Your task to perform on an android device: What's the price of the 2x4x8 boards at Home Depot? Image 0: 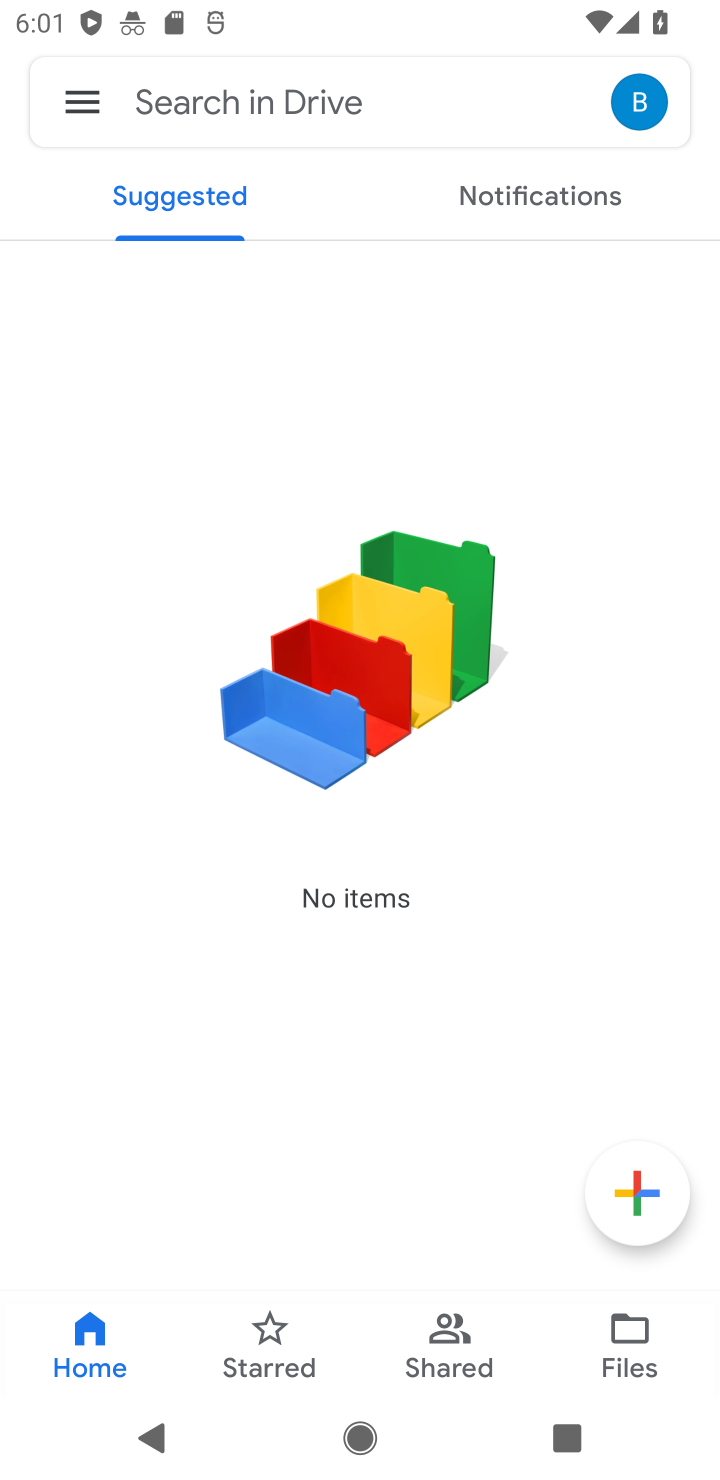
Step 0: press home button
Your task to perform on an android device: What's the price of the 2x4x8 boards at Home Depot? Image 1: 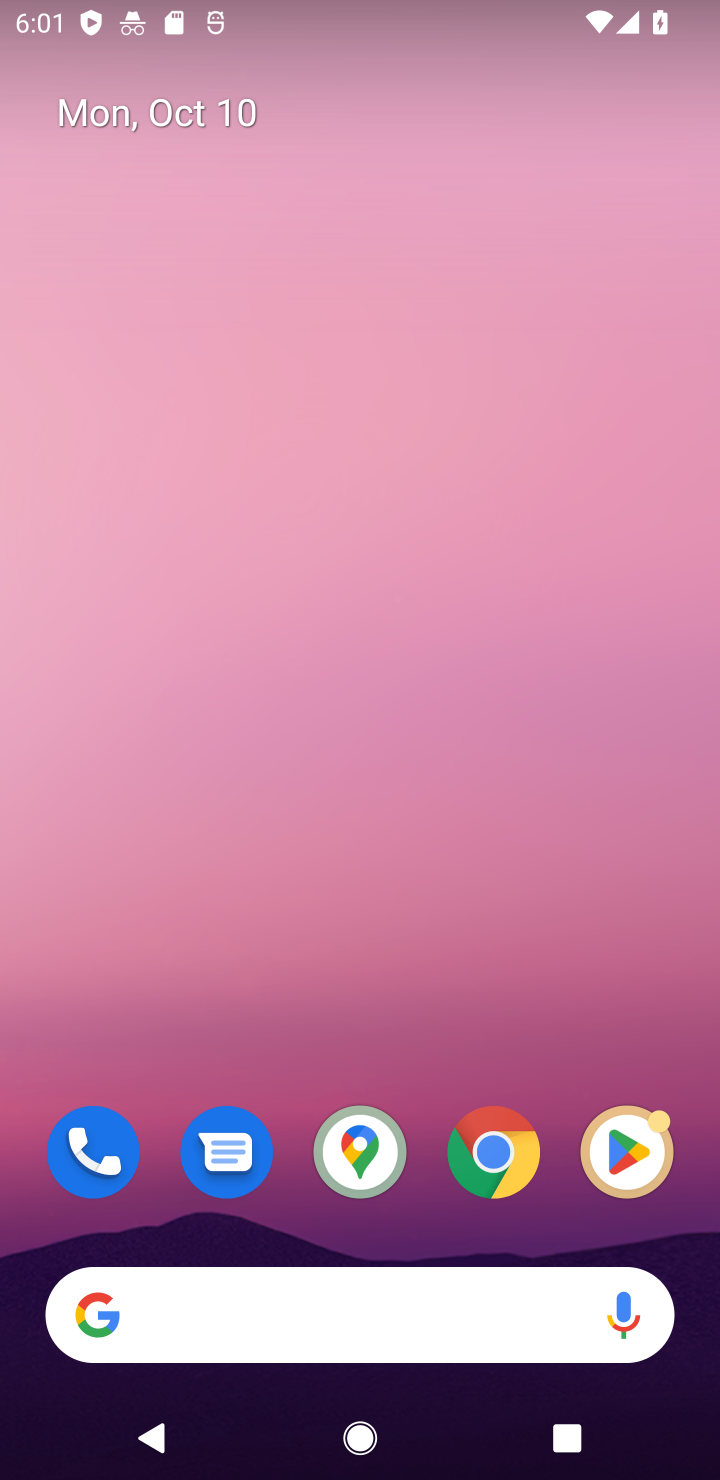
Step 1: click (502, 1156)
Your task to perform on an android device: What's the price of the 2x4x8 boards at Home Depot? Image 2: 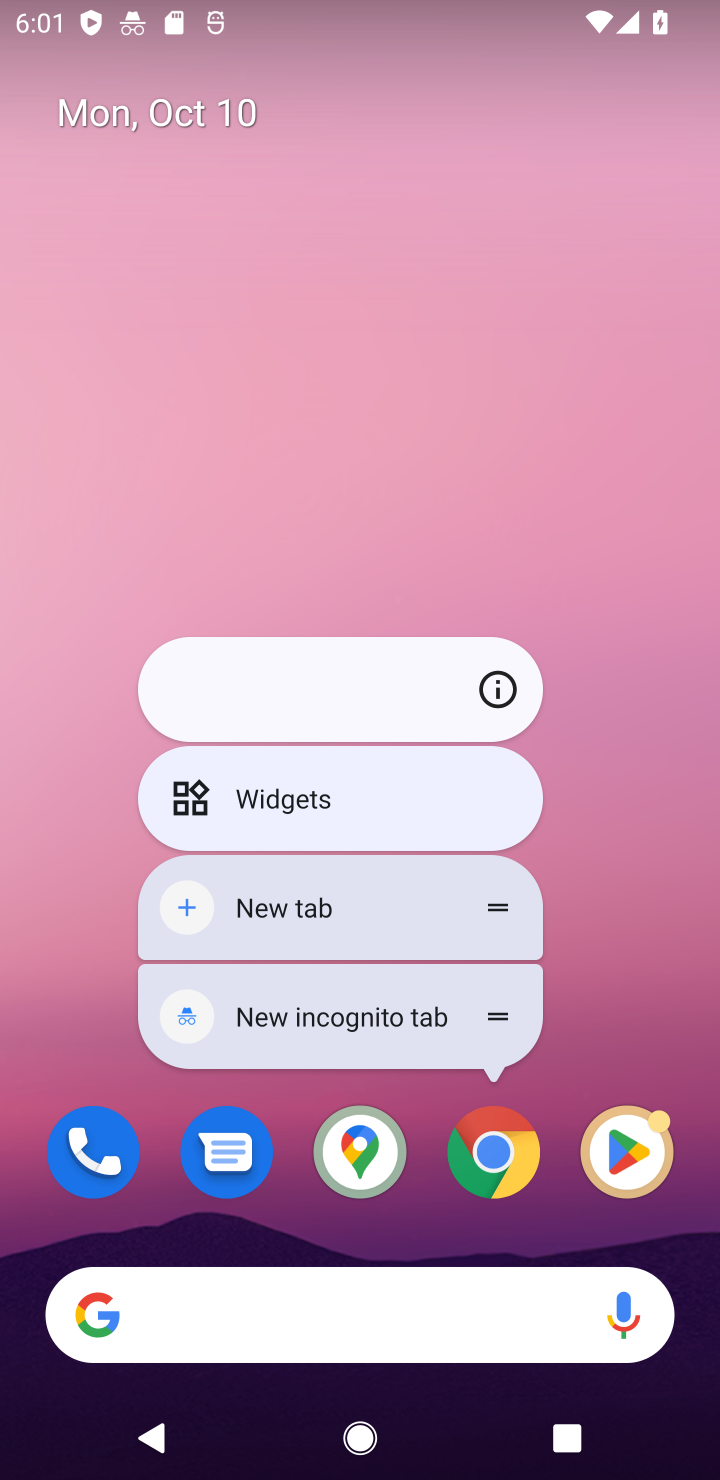
Step 2: click (493, 1146)
Your task to perform on an android device: What's the price of the 2x4x8 boards at Home Depot? Image 3: 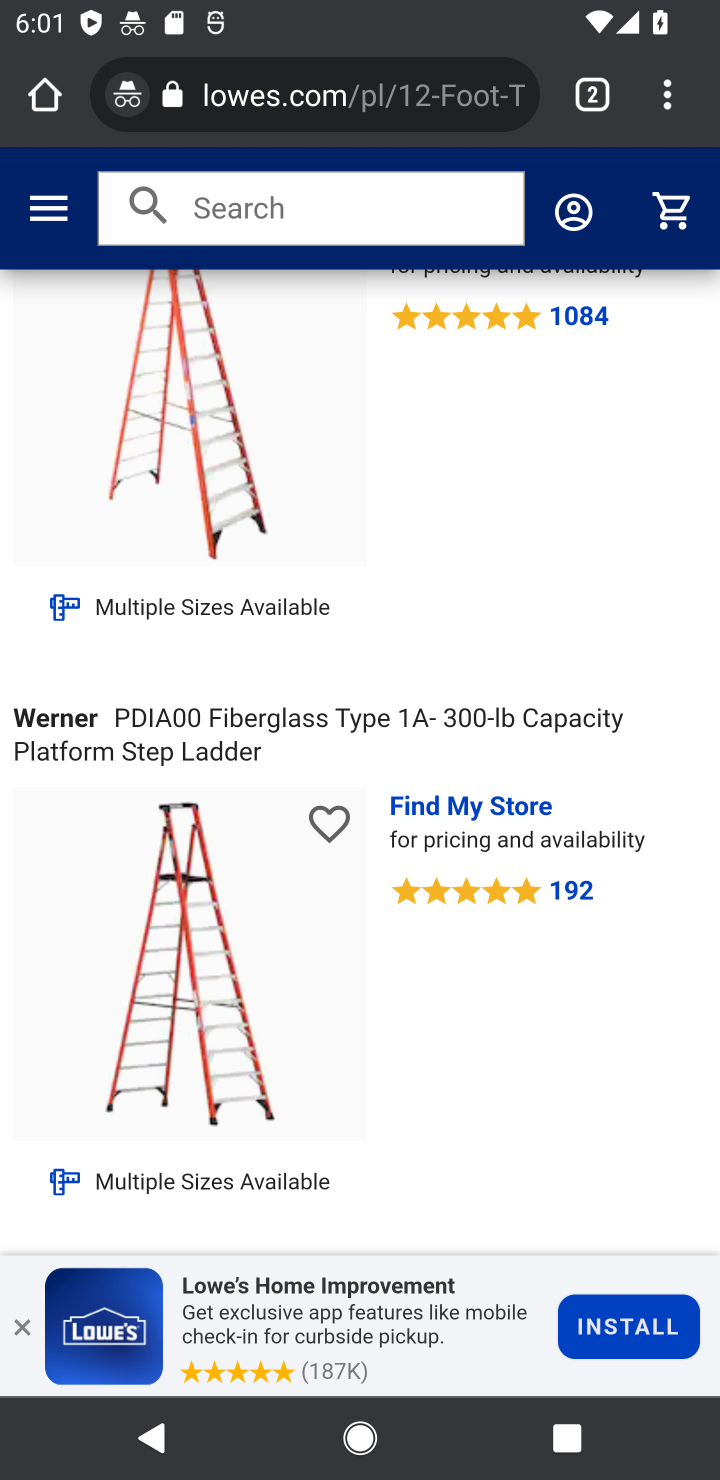
Step 3: click (410, 96)
Your task to perform on an android device: What's the price of the 2x4x8 boards at Home Depot? Image 4: 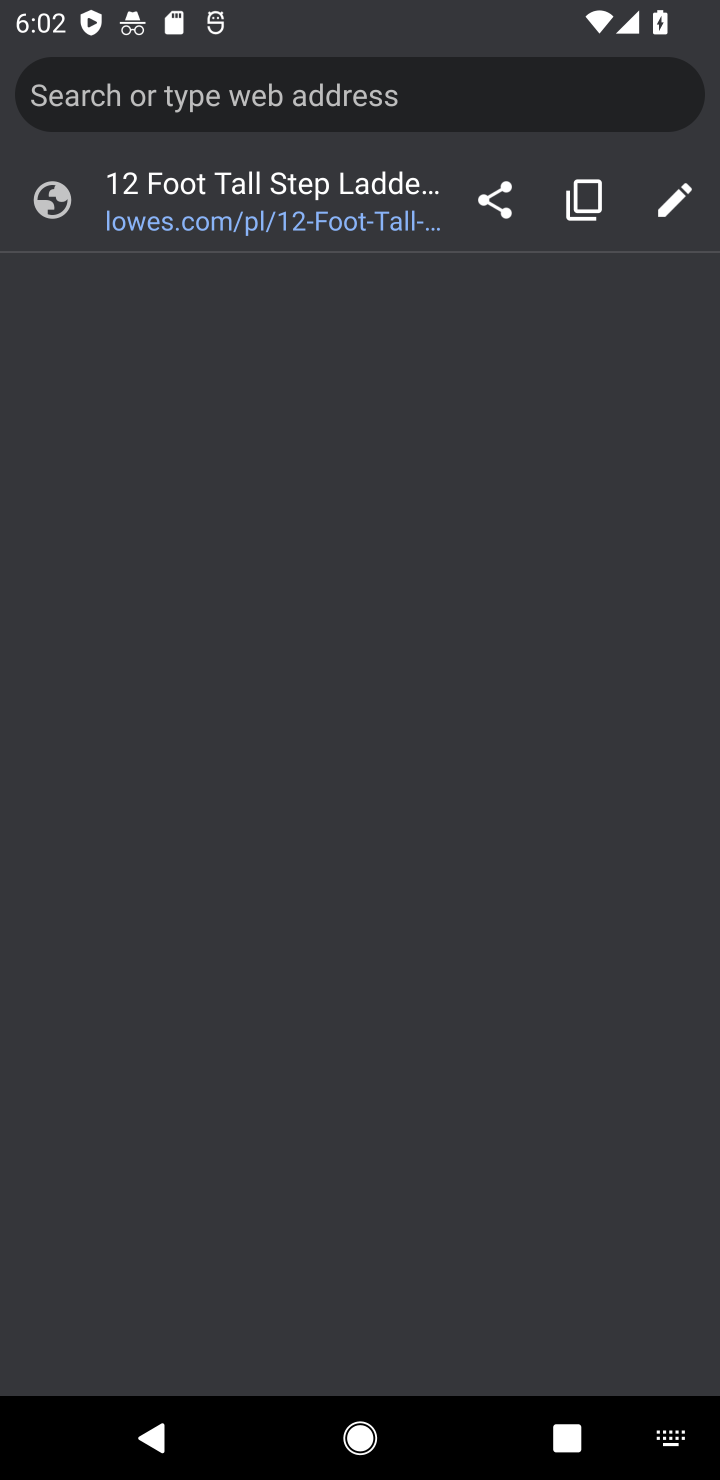
Step 4: type "Home Depot"
Your task to perform on an android device: What's the price of the 2x4x8 boards at Home Depot? Image 5: 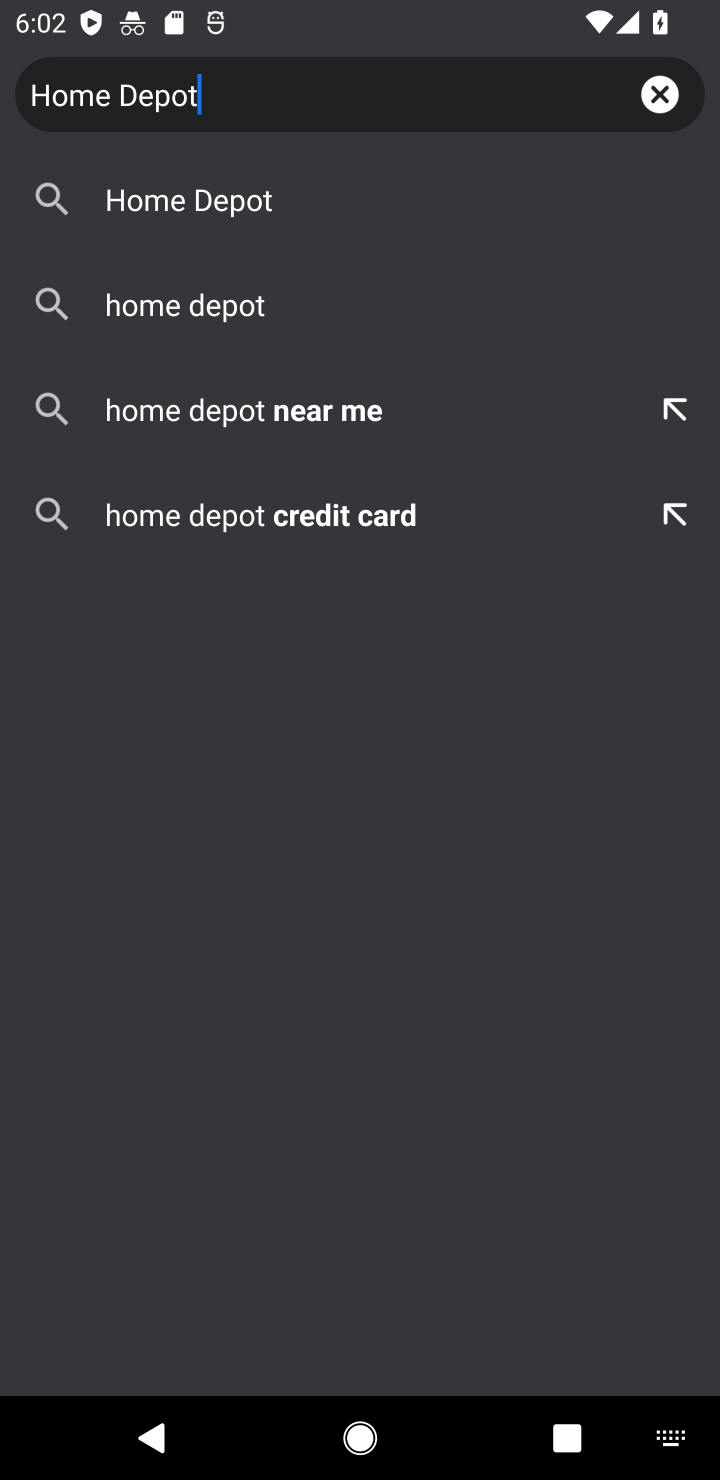
Step 5: click (248, 221)
Your task to perform on an android device: What's the price of the 2x4x8 boards at Home Depot? Image 6: 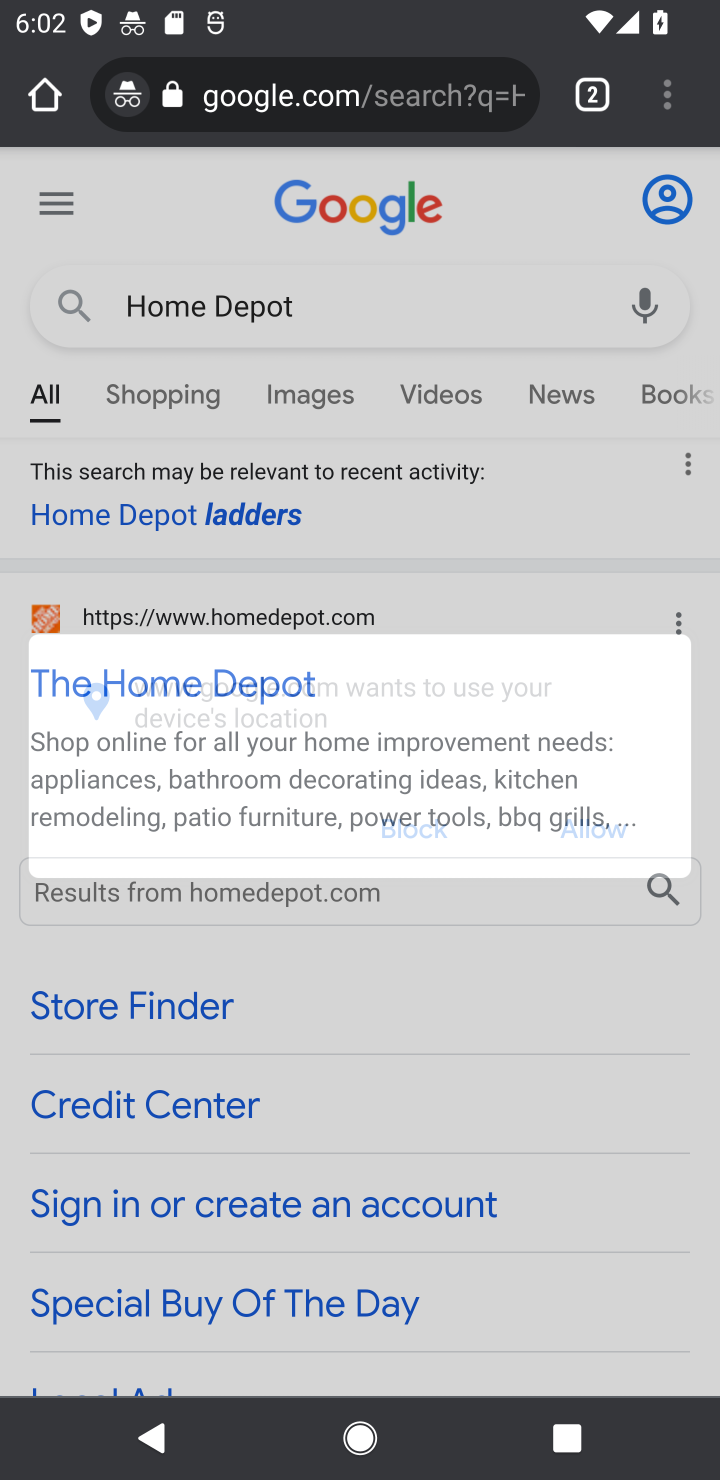
Step 6: click (255, 693)
Your task to perform on an android device: What's the price of the 2x4x8 boards at Home Depot? Image 7: 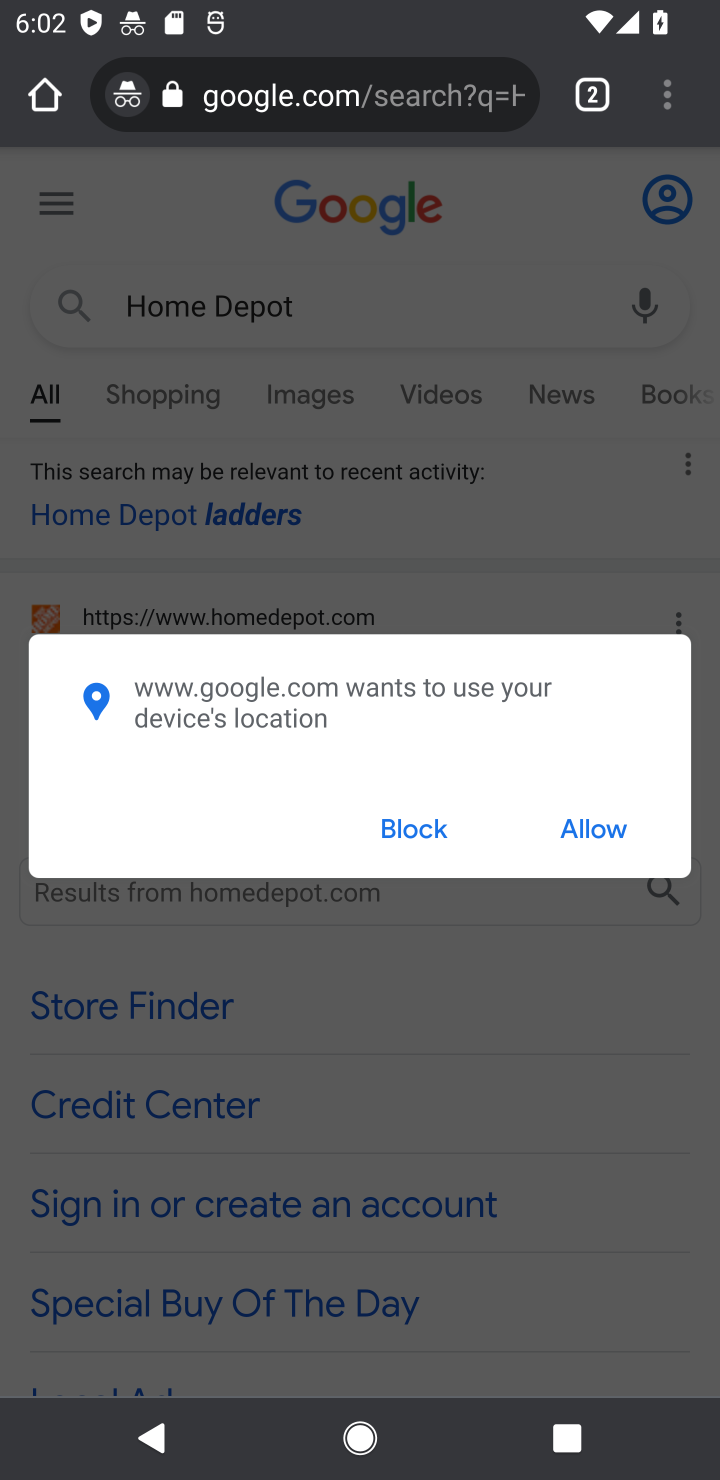
Step 7: click (573, 823)
Your task to perform on an android device: What's the price of the 2x4x8 boards at Home Depot? Image 8: 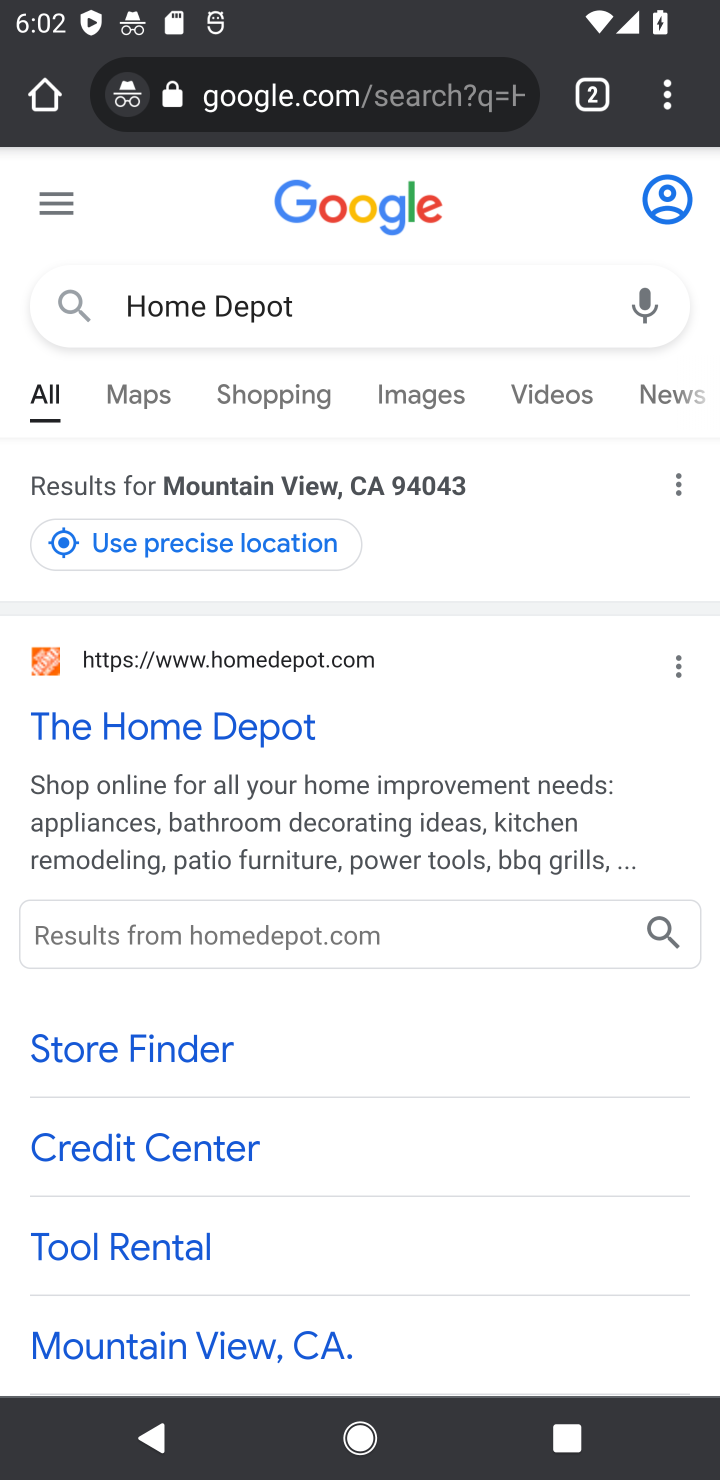
Step 8: click (303, 734)
Your task to perform on an android device: What's the price of the 2x4x8 boards at Home Depot? Image 9: 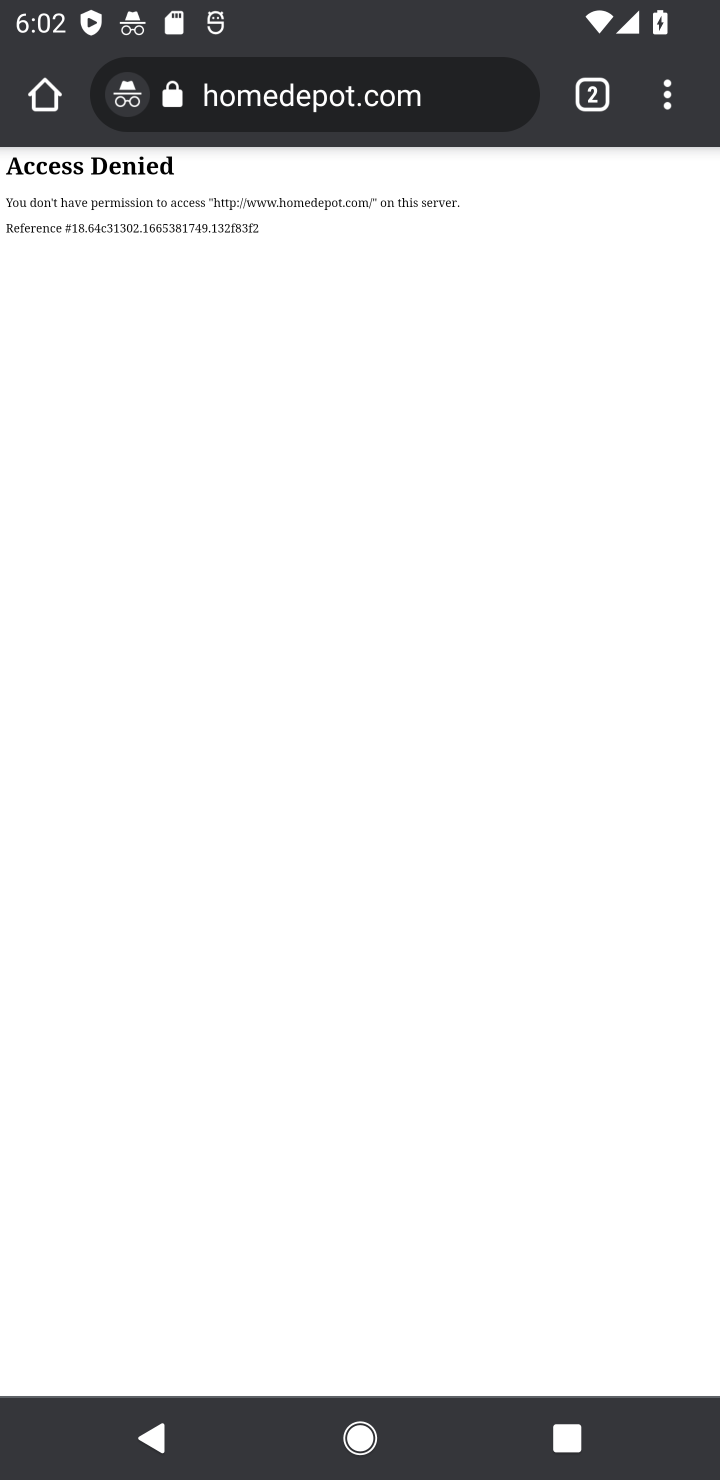
Step 9: task complete